Your task to perform on an android device: turn off location history Image 0: 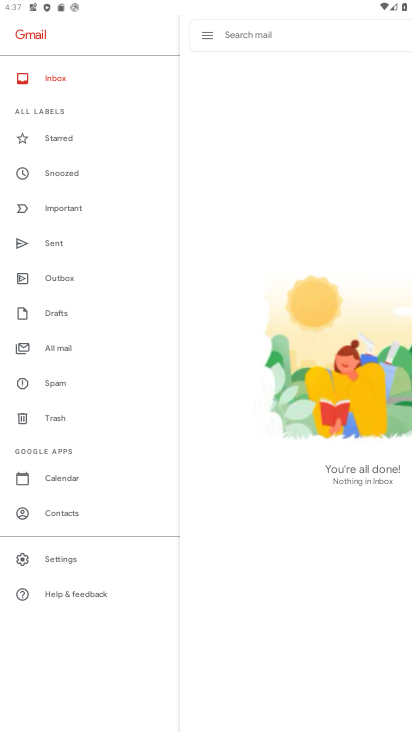
Step 0: press home button
Your task to perform on an android device: turn off location history Image 1: 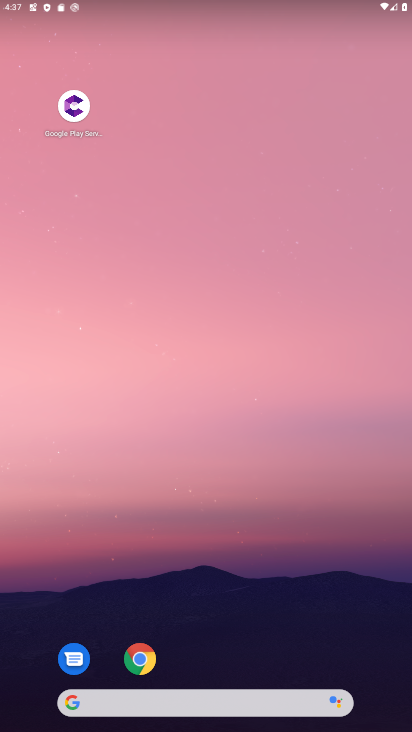
Step 1: drag from (273, 695) to (309, 82)
Your task to perform on an android device: turn off location history Image 2: 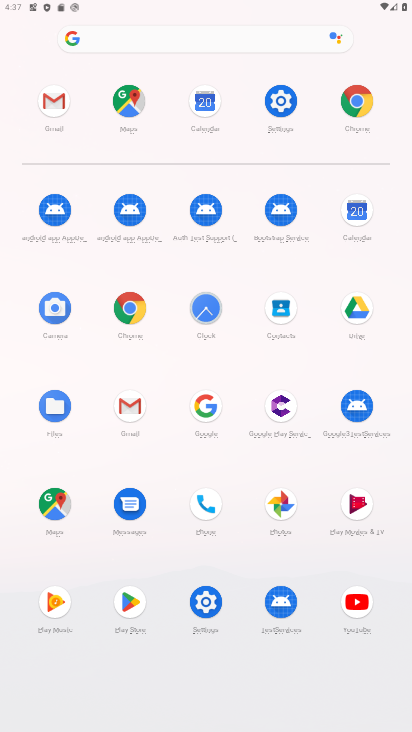
Step 2: click (287, 94)
Your task to perform on an android device: turn off location history Image 3: 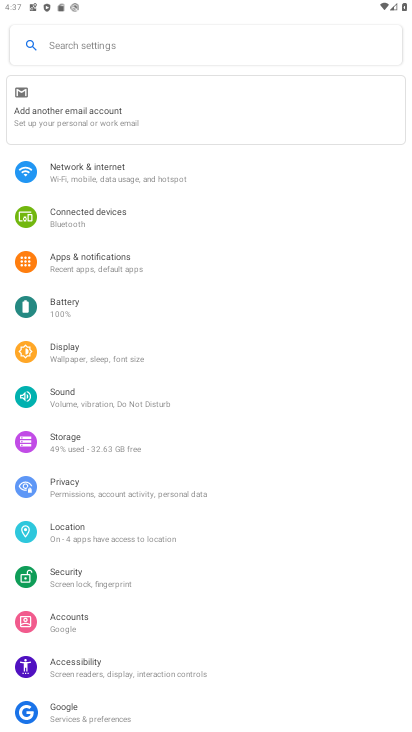
Step 3: click (106, 534)
Your task to perform on an android device: turn off location history Image 4: 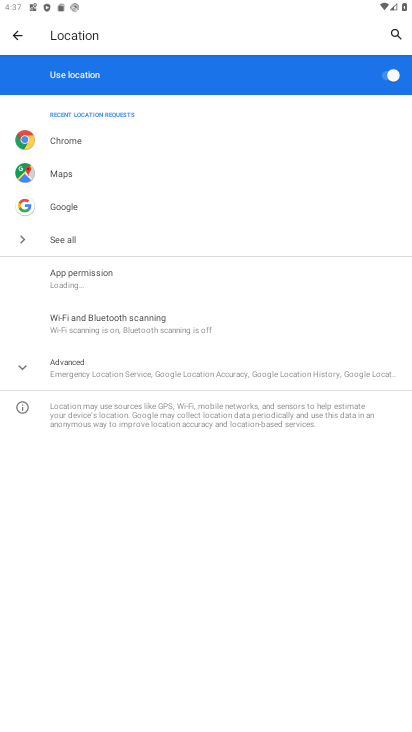
Step 4: click (184, 373)
Your task to perform on an android device: turn off location history Image 5: 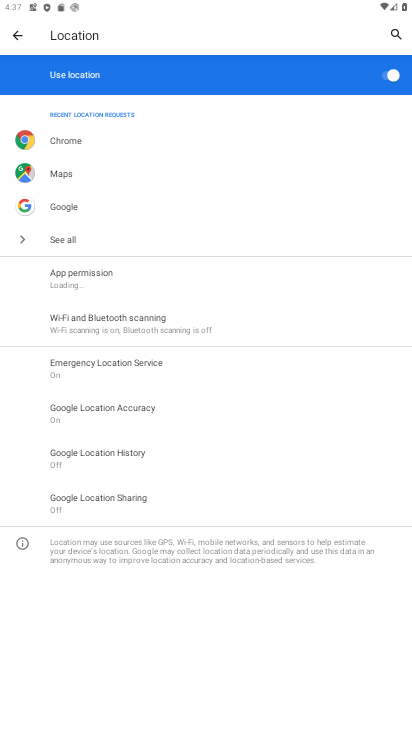
Step 5: click (141, 453)
Your task to perform on an android device: turn off location history Image 6: 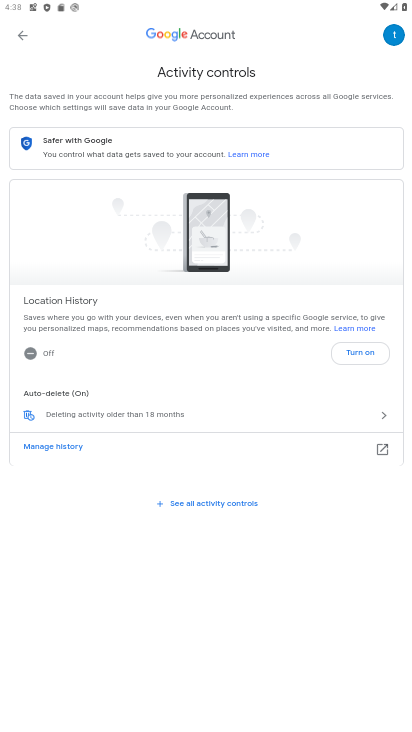
Step 6: task complete